Your task to perform on an android device: toggle javascript in the chrome app Image 0: 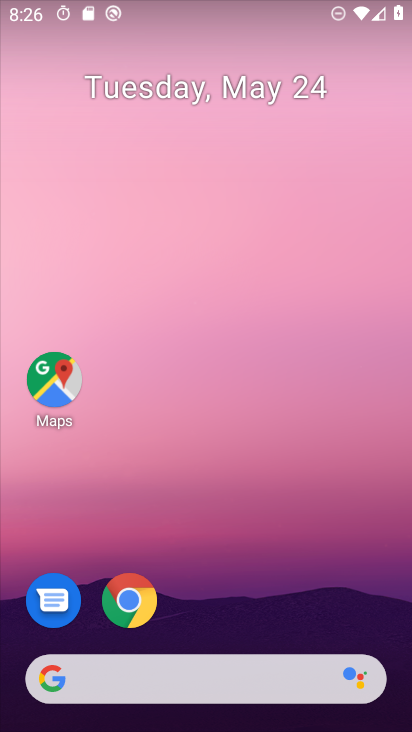
Step 0: click (134, 592)
Your task to perform on an android device: toggle javascript in the chrome app Image 1: 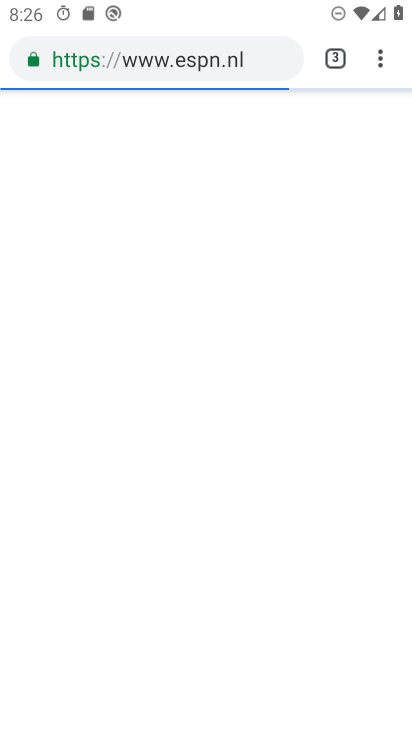
Step 1: drag from (381, 56) to (191, 619)
Your task to perform on an android device: toggle javascript in the chrome app Image 2: 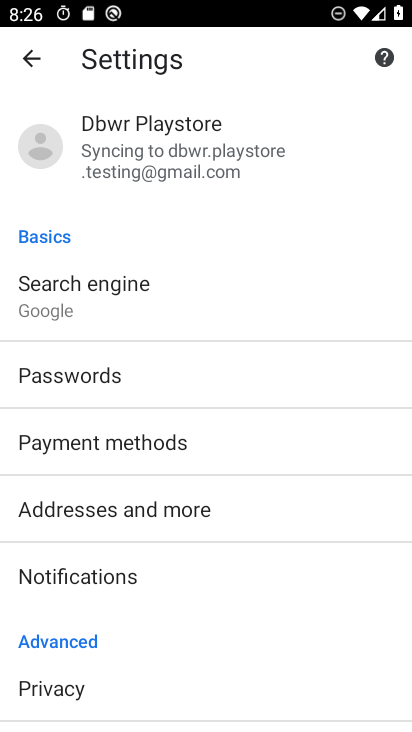
Step 2: drag from (205, 625) to (218, 310)
Your task to perform on an android device: toggle javascript in the chrome app Image 3: 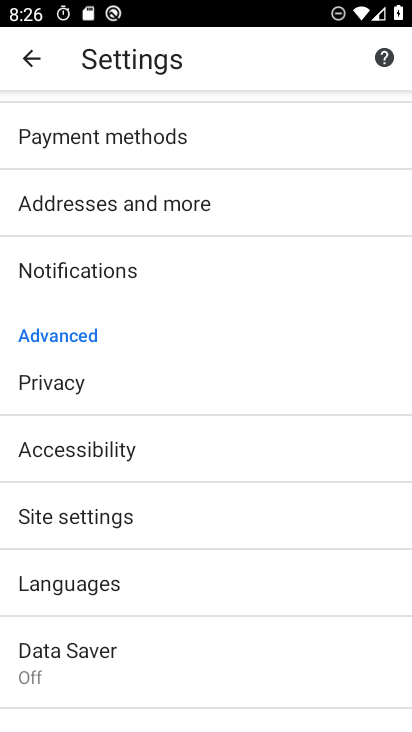
Step 3: click (126, 504)
Your task to perform on an android device: toggle javascript in the chrome app Image 4: 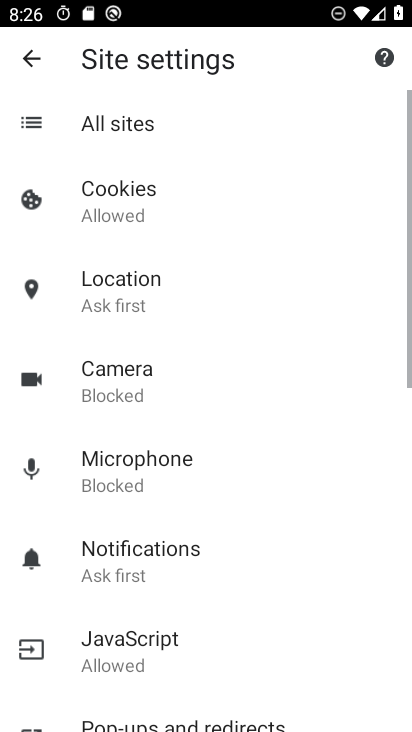
Step 4: click (159, 639)
Your task to perform on an android device: toggle javascript in the chrome app Image 5: 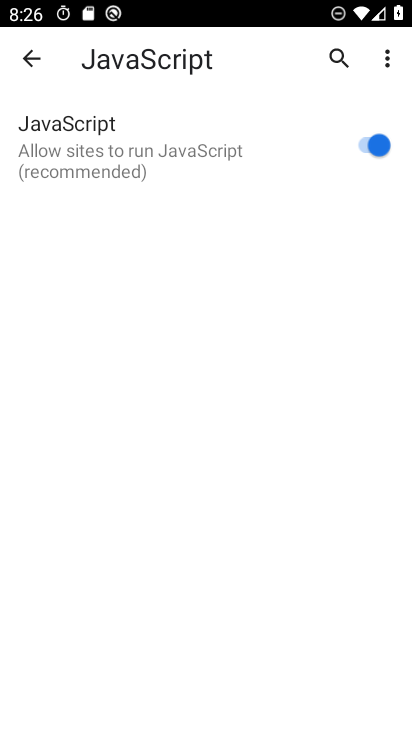
Step 5: click (377, 140)
Your task to perform on an android device: toggle javascript in the chrome app Image 6: 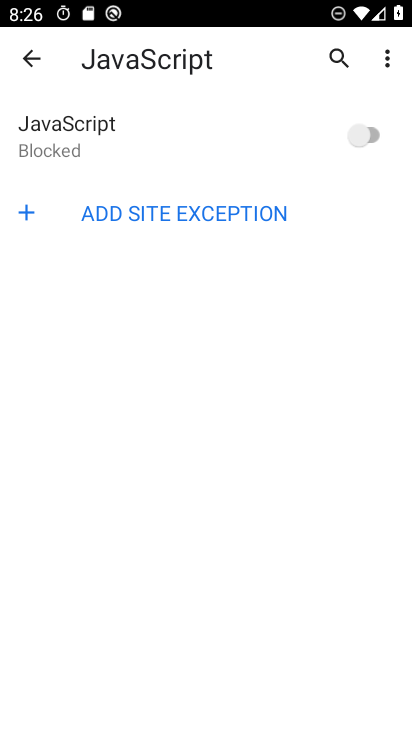
Step 6: task complete